Your task to perform on an android device: Open calendar and show me the first week of next month Image 0: 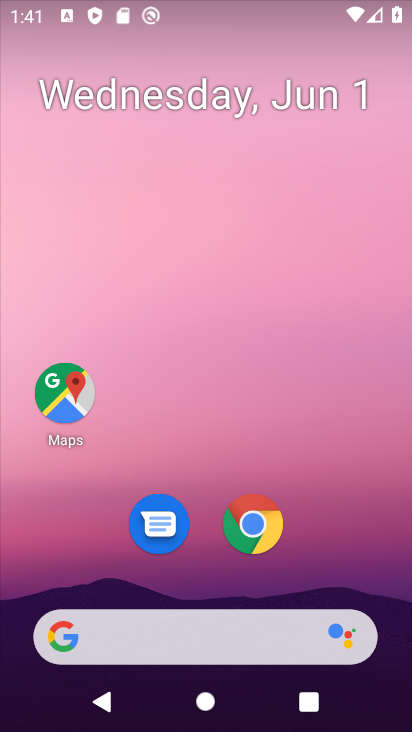
Step 0: drag from (212, 477) to (249, 8)
Your task to perform on an android device: Open calendar and show me the first week of next month Image 1: 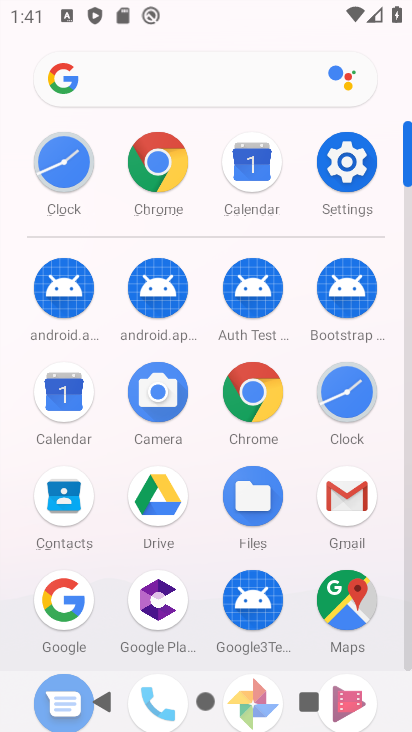
Step 1: click (261, 166)
Your task to perform on an android device: Open calendar and show me the first week of next month Image 2: 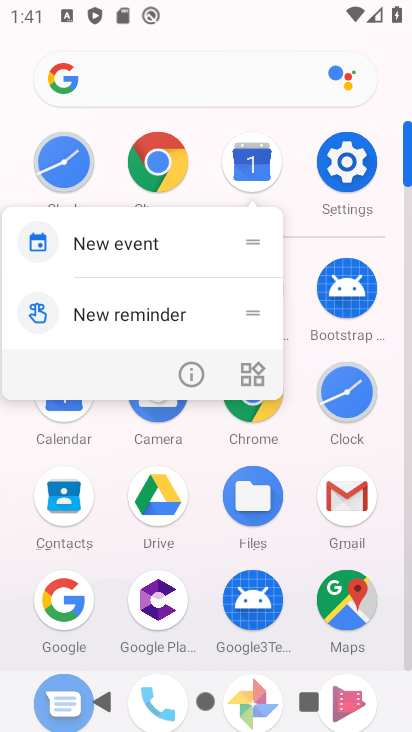
Step 2: click (261, 165)
Your task to perform on an android device: Open calendar and show me the first week of next month Image 3: 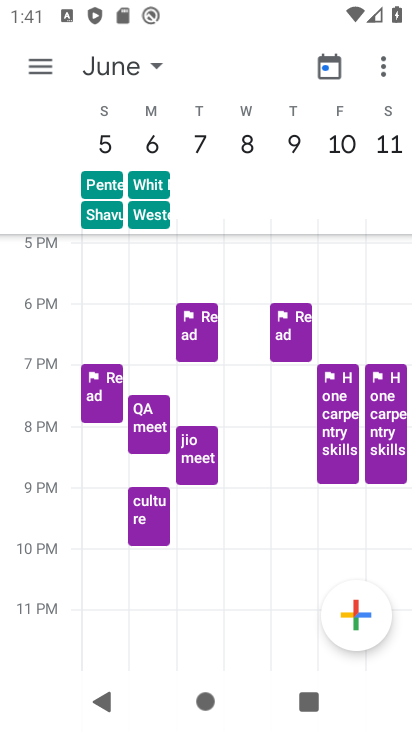
Step 3: task complete